Your task to perform on an android device: Go to Reddit.com Image 0: 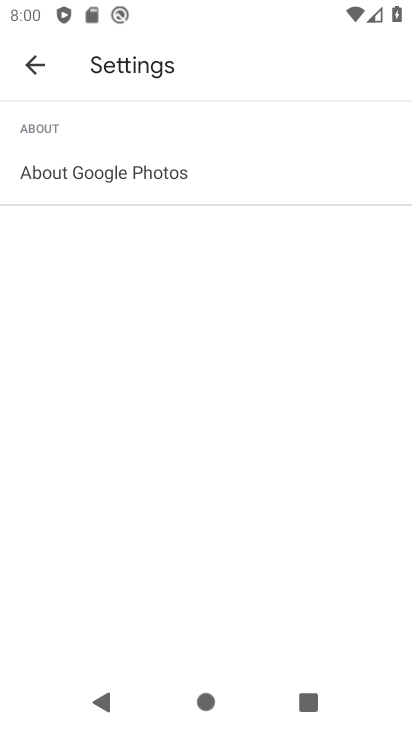
Step 0: press home button
Your task to perform on an android device: Go to Reddit.com Image 1: 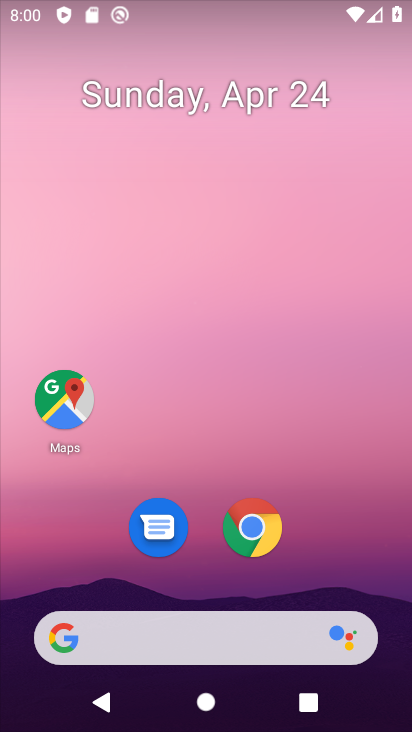
Step 1: click (257, 539)
Your task to perform on an android device: Go to Reddit.com Image 2: 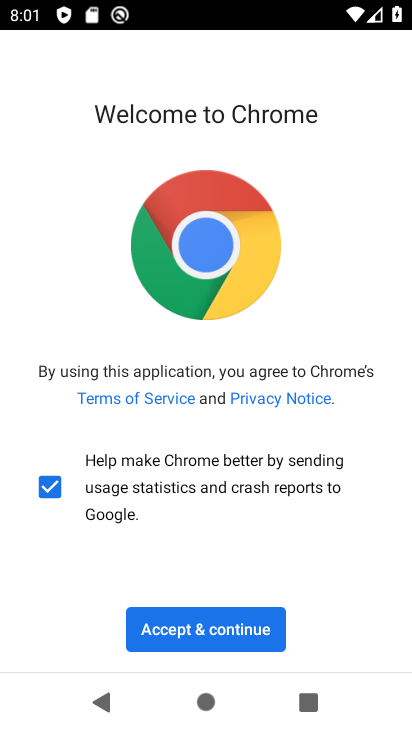
Step 2: click (200, 639)
Your task to perform on an android device: Go to Reddit.com Image 3: 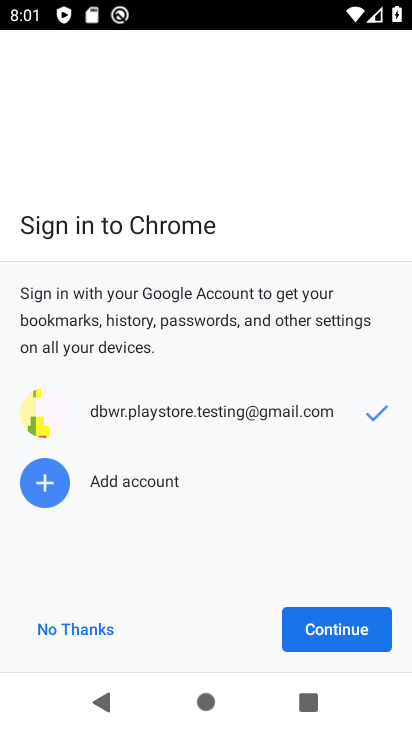
Step 3: click (88, 639)
Your task to perform on an android device: Go to Reddit.com Image 4: 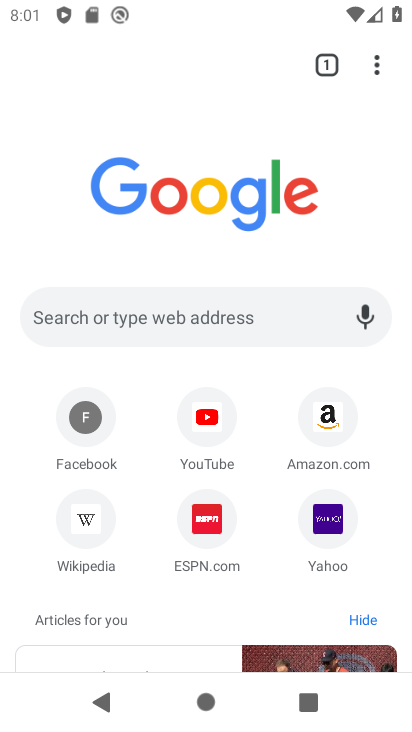
Step 4: click (154, 318)
Your task to perform on an android device: Go to Reddit.com Image 5: 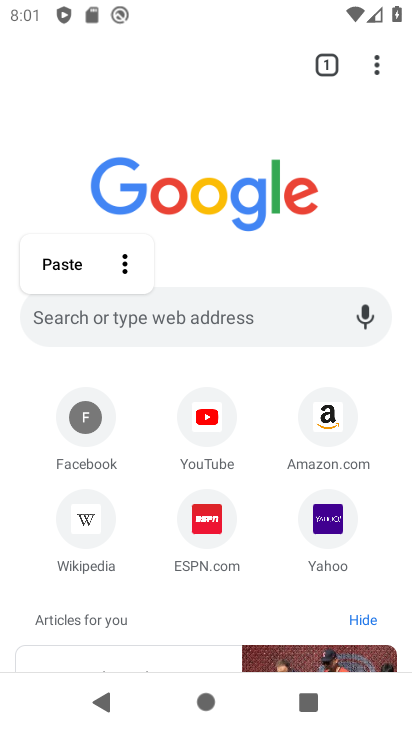
Step 5: type "reddit.com"
Your task to perform on an android device: Go to Reddit.com Image 6: 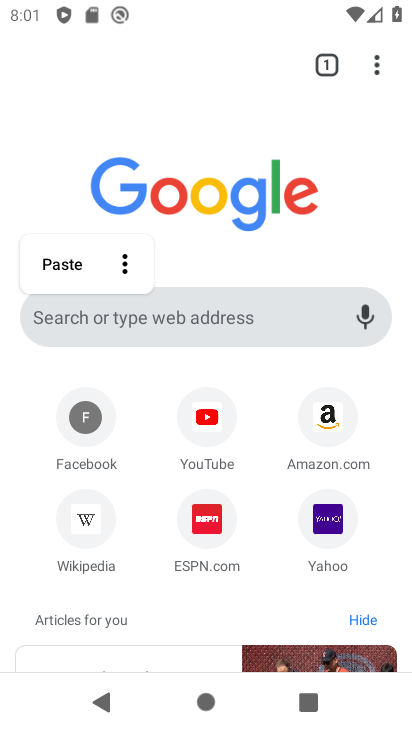
Step 6: click (90, 326)
Your task to perform on an android device: Go to Reddit.com Image 7: 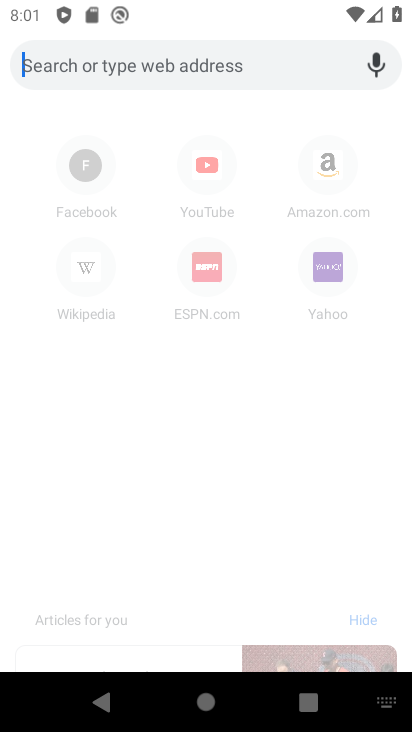
Step 7: type "reddit.com"
Your task to perform on an android device: Go to Reddit.com Image 8: 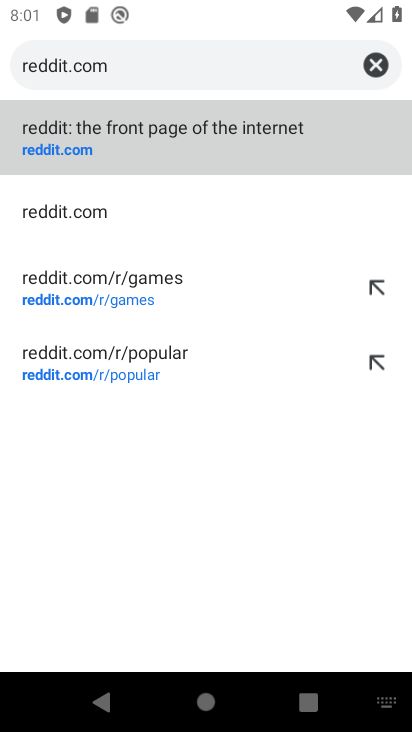
Step 8: click (59, 215)
Your task to perform on an android device: Go to Reddit.com Image 9: 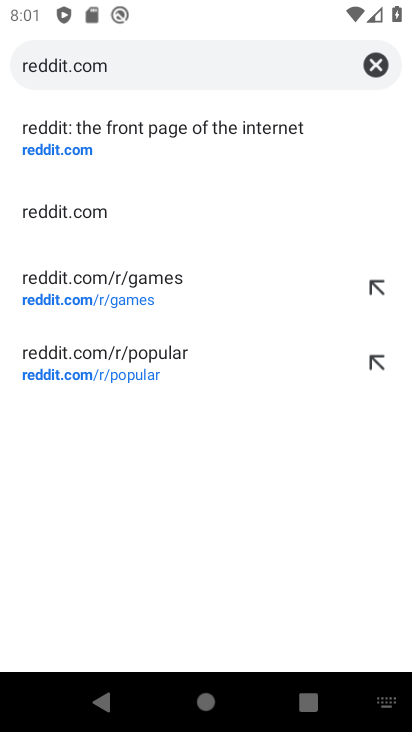
Step 9: click (34, 220)
Your task to perform on an android device: Go to Reddit.com Image 10: 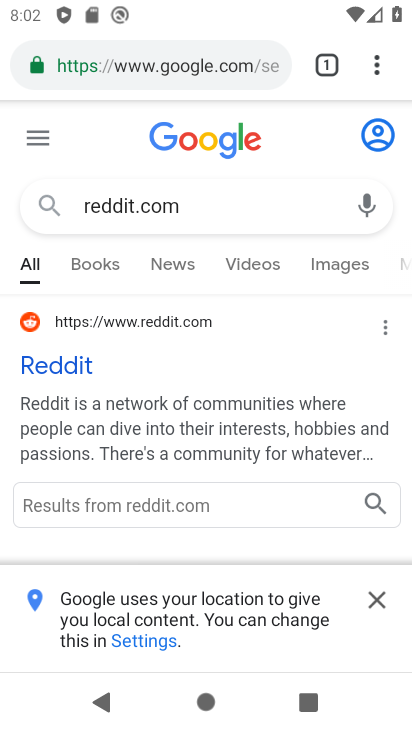
Step 10: click (50, 369)
Your task to perform on an android device: Go to Reddit.com Image 11: 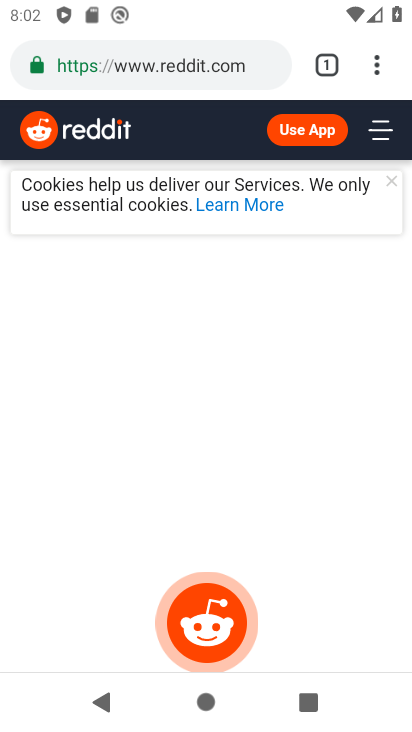
Step 11: task complete